Your task to perform on an android device: open a new tab in the chrome app Image 0: 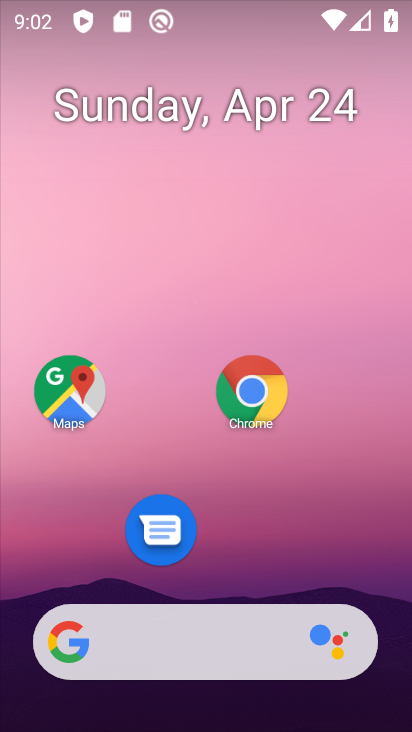
Step 0: click (251, 392)
Your task to perform on an android device: open a new tab in the chrome app Image 1: 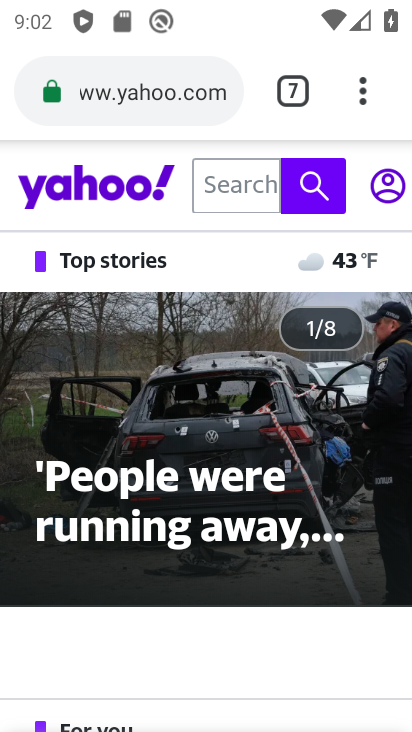
Step 1: click (366, 87)
Your task to perform on an android device: open a new tab in the chrome app Image 2: 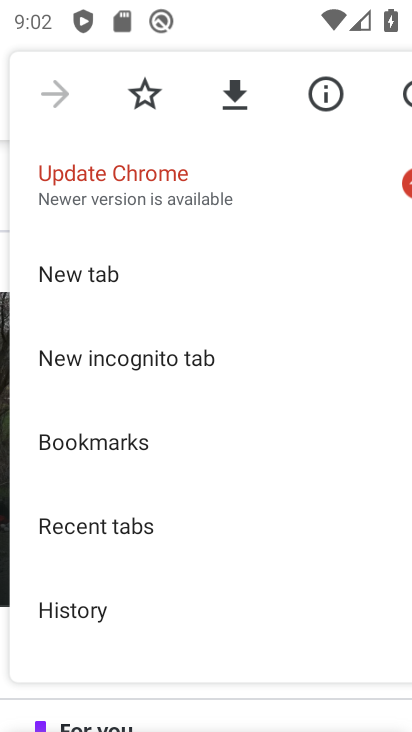
Step 2: click (137, 288)
Your task to perform on an android device: open a new tab in the chrome app Image 3: 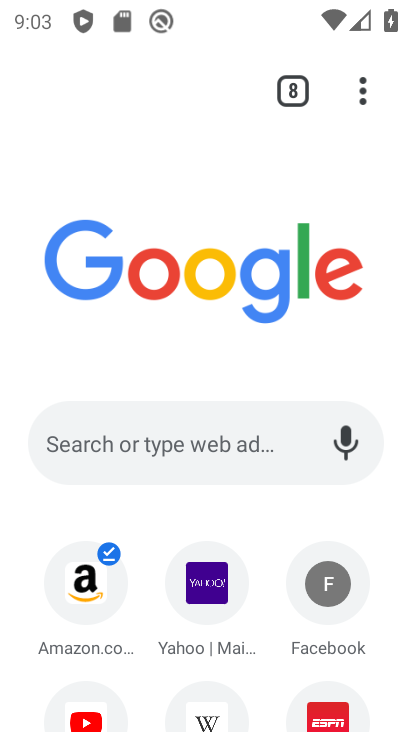
Step 3: task complete